Your task to perform on an android device: turn off picture-in-picture Image 0: 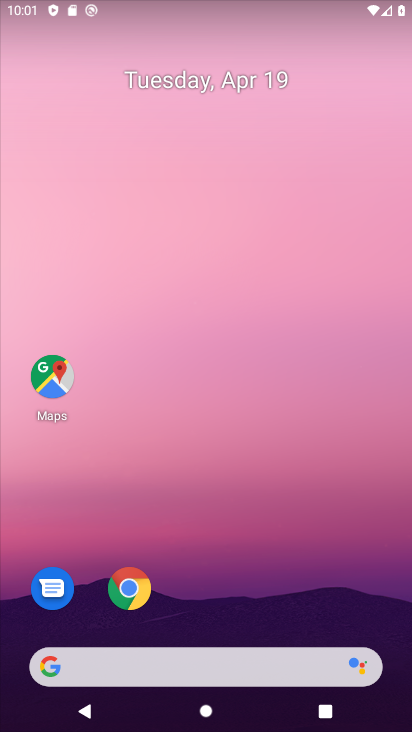
Step 0: drag from (121, 606) to (132, 559)
Your task to perform on an android device: turn off picture-in-picture Image 1: 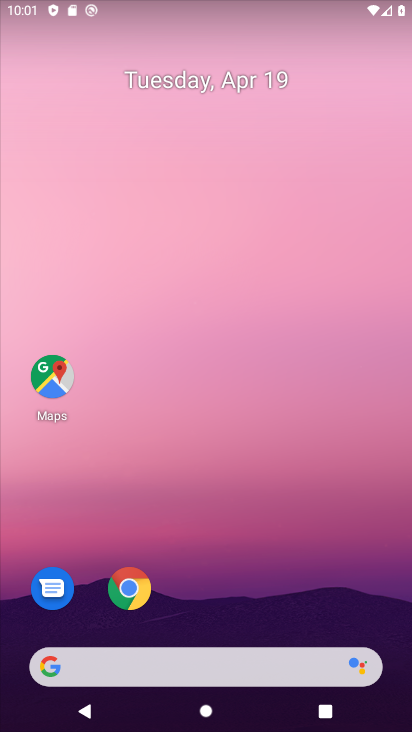
Step 1: click (129, 576)
Your task to perform on an android device: turn off picture-in-picture Image 2: 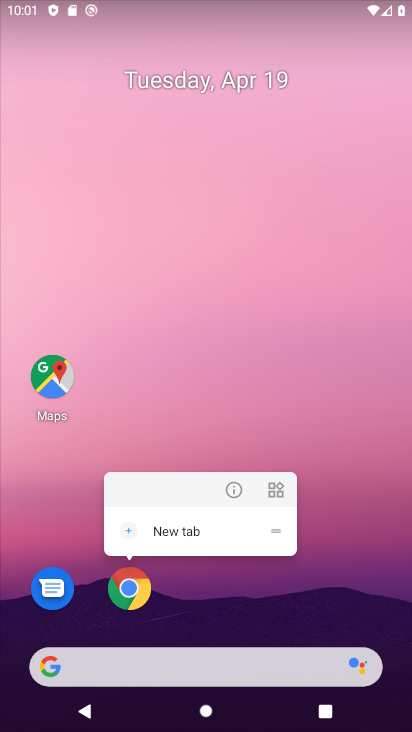
Step 2: click (240, 492)
Your task to perform on an android device: turn off picture-in-picture Image 3: 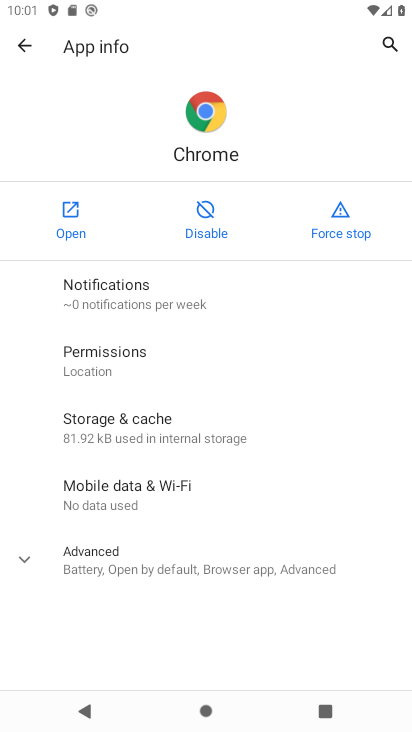
Step 3: click (161, 556)
Your task to perform on an android device: turn off picture-in-picture Image 4: 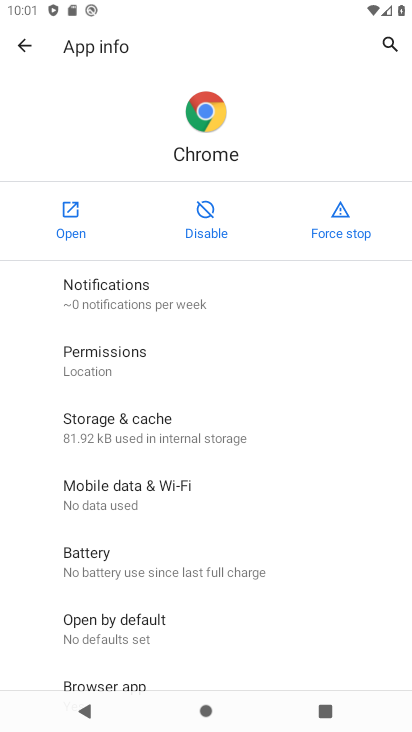
Step 4: drag from (220, 592) to (182, 192)
Your task to perform on an android device: turn off picture-in-picture Image 5: 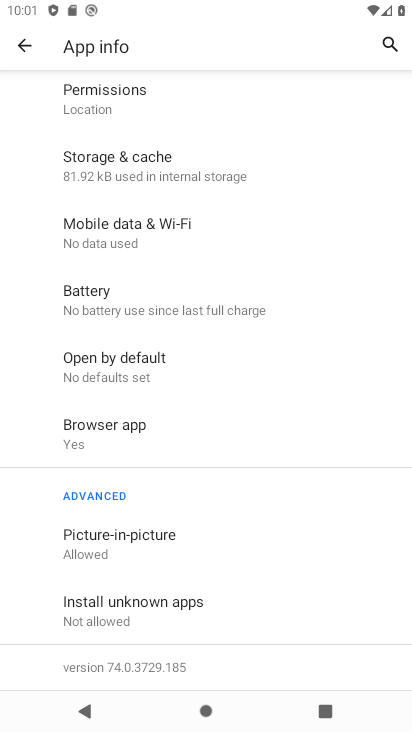
Step 5: click (164, 548)
Your task to perform on an android device: turn off picture-in-picture Image 6: 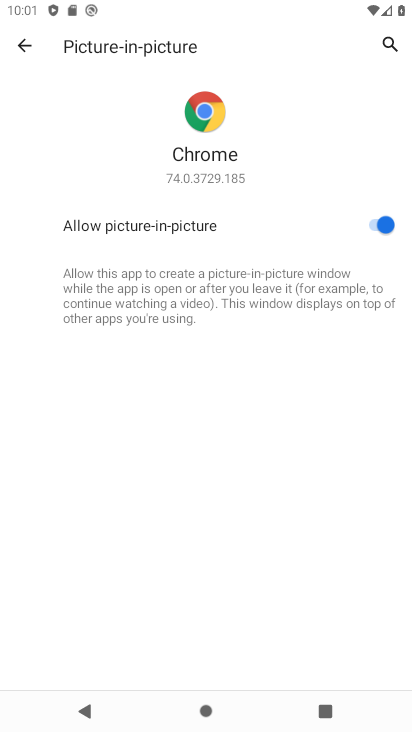
Step 6: click (379, 223)
Your task to perform on an android device: turn off picture-in-picture Image 7: 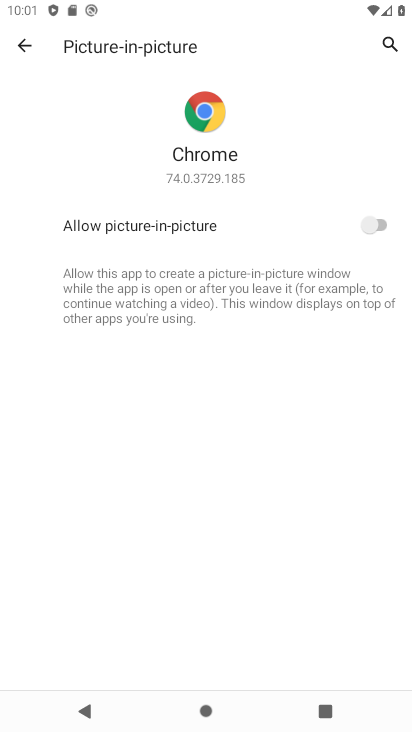
Step 7: task complete